Your task to perform on an android device: turn on the 12-hour format for clock Image 0: 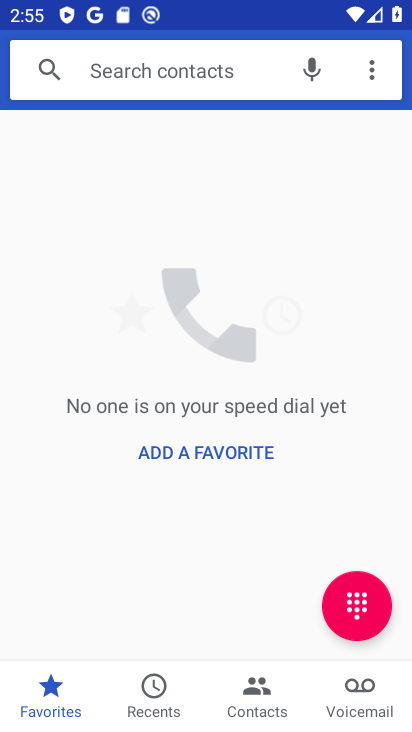
Step 0: press home button
Your task to perform on an android device: turn on the 12-hour format for clock Image 1: 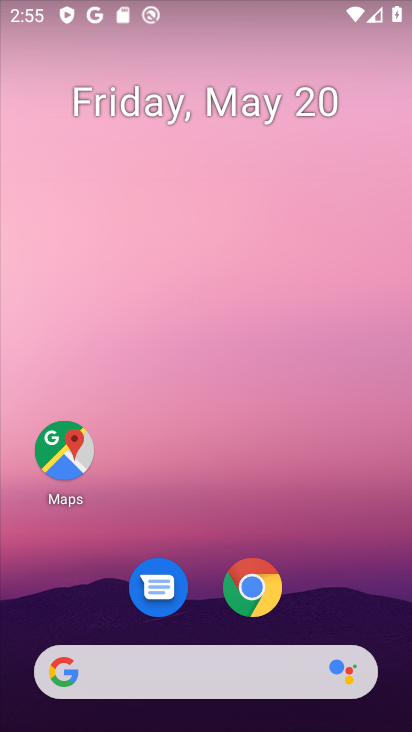
Step 1: drag from (218, 676) to (335, 304)
Your task to perform on an android device: turn on the 12-hour format for clock Image 2: 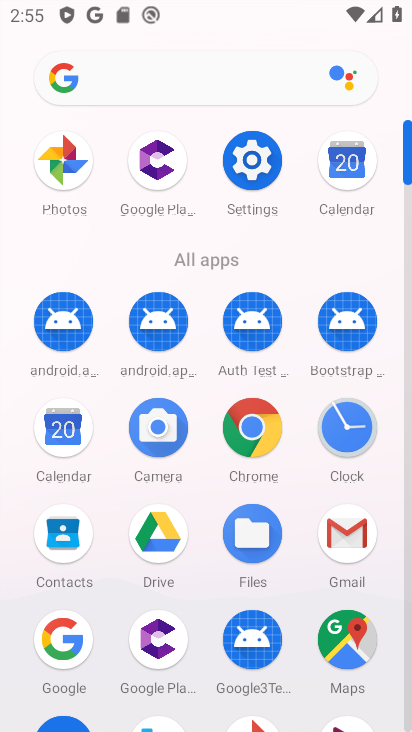
Step 2: click (337, 428)
Your task to perform on an android device: turn on the 12-hour format for clock Image 3: 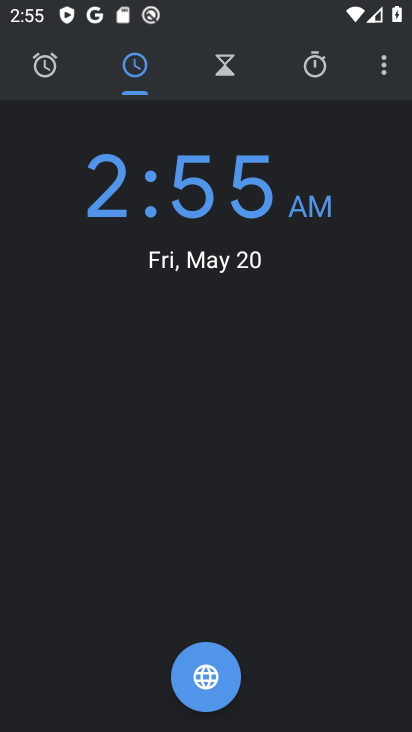
Step 3: click (384, 67)
Your task to perform on an android device: turn on the 12-hour format for clock Image 4: 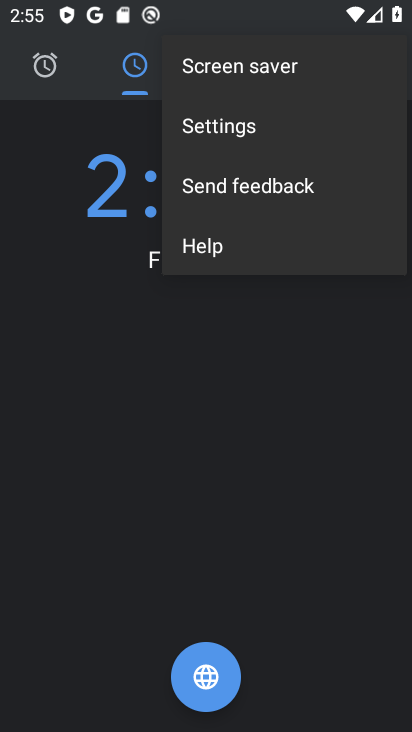
Step 4: click (242, 131)
Your task to perform on an android device: turn on the 12-hour format for clock Image 5: 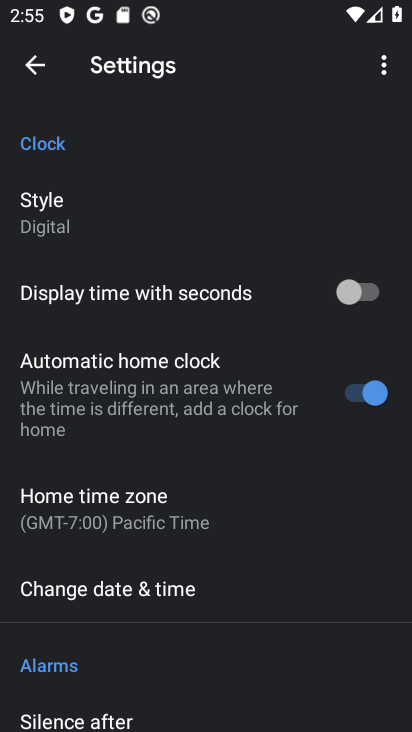
Step 5: click (170, 594)
Your task to perform on an android device: turn on the 12-hour format for clock Image 6: 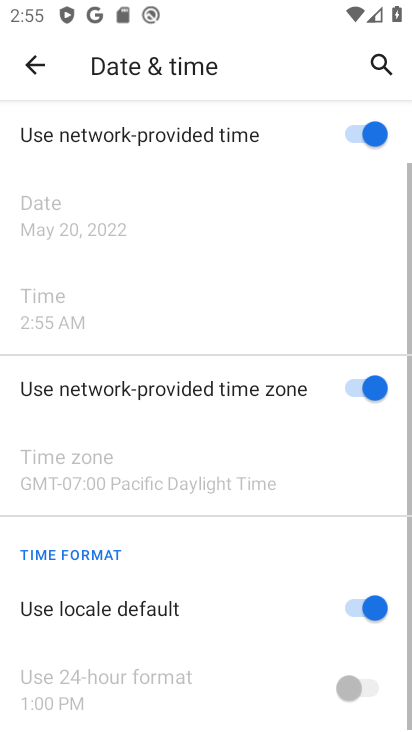
Step 6: task complete